Your task to perform on an android device: Open calendar and show me the first week of next month Image 0: 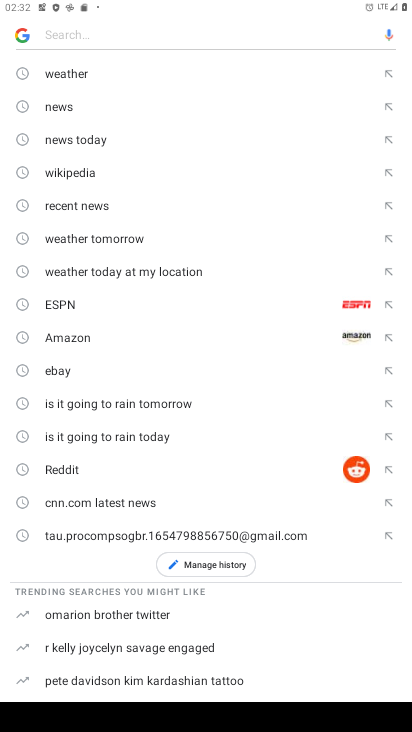
Step 0: press home button
Your task to perform on an android device: Open calendar and show me the first week of next month Image 1: 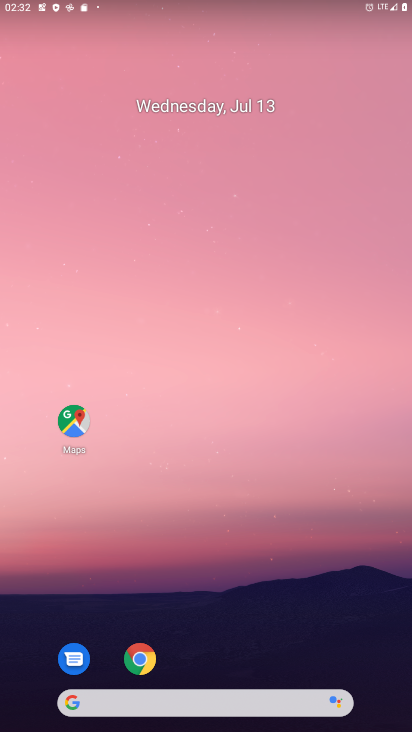
Step 1: drag from (190, 728) to (190, 75)
Your task to perform on an android device: Open calendar and show me the first week of next month Image 2: 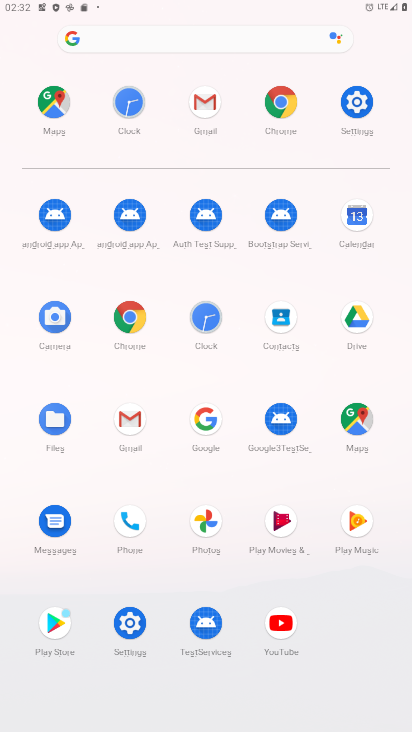
Step 2: click (360, 219)
Your task to perform on an android device: Open calendar and show me the first week of next month Image 3: 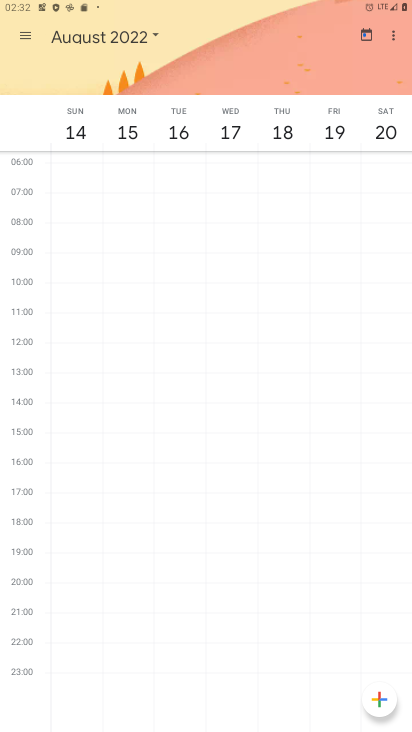
Step 3: click (154, 33)
Your task to perform on an android device: Open calendar and show me the first week of next month Image 4: 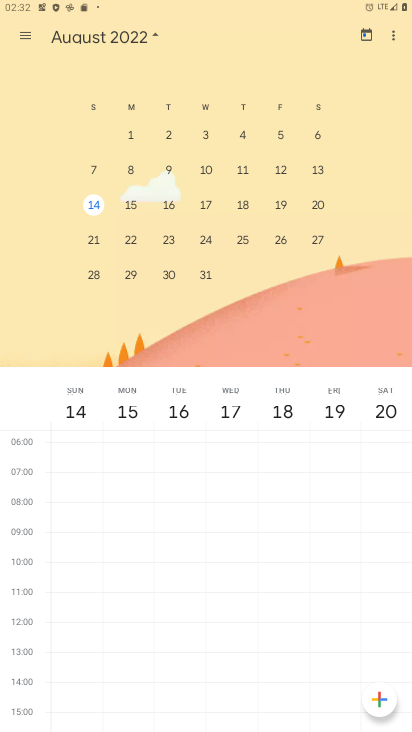
Step 4: click (133, 133)
Your task to perform on an android device: Open calendar and show me the first week of next month Image 5: 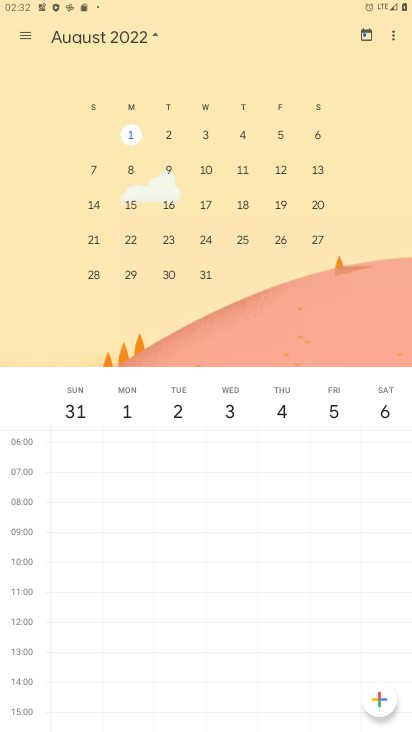
Step 5: click (123, 397)
Your task to perform on an android device: Open calendar and show me the first week of next month Image 6: 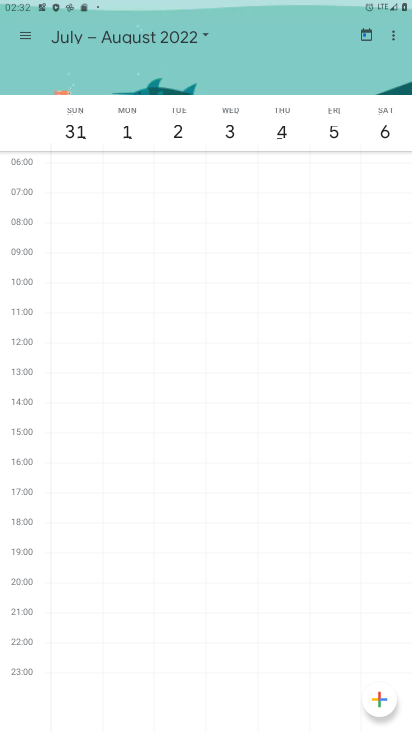
Step 6: task complete